Your task to perform on an android device: Open wifi settings Image 0: 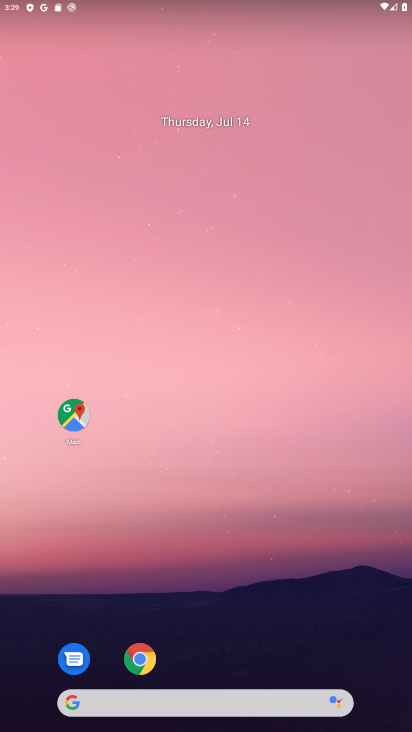
Step 0: drag from (362, 615) to (353, 88)
Your task to perform on an android device: Open wifi settings Image 1: 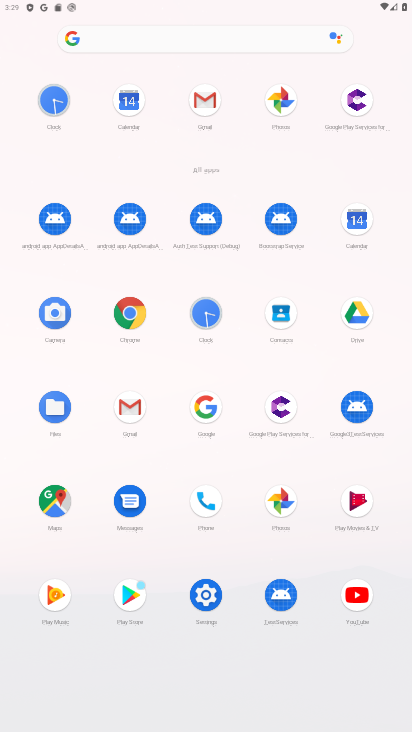
Step 1: click (204, 587)
Your task to perform on an android device: Open wifi settings Image 2: 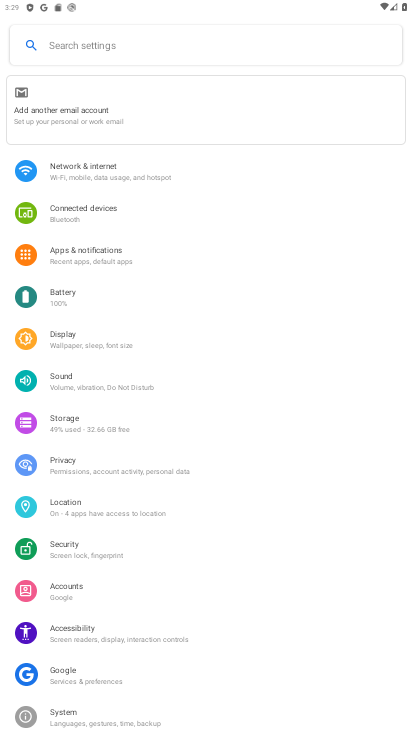
Step 2: click (214, 173)
Your task to perform on an android device: Open wifi settings Image 3: 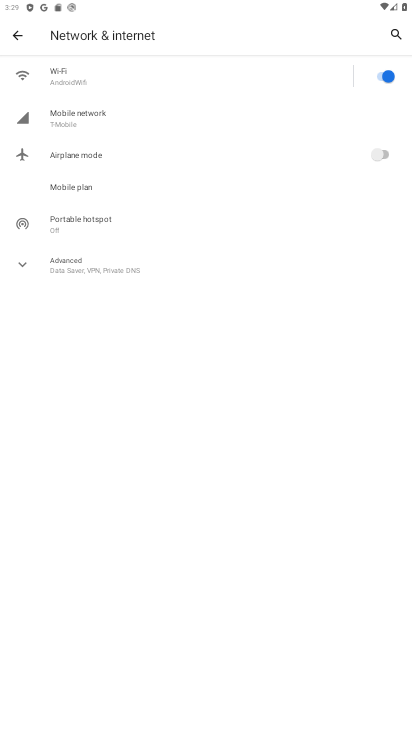
Step 3: click (113, 83)
Your task to perform on an android device: Open wifi settings Image 4: 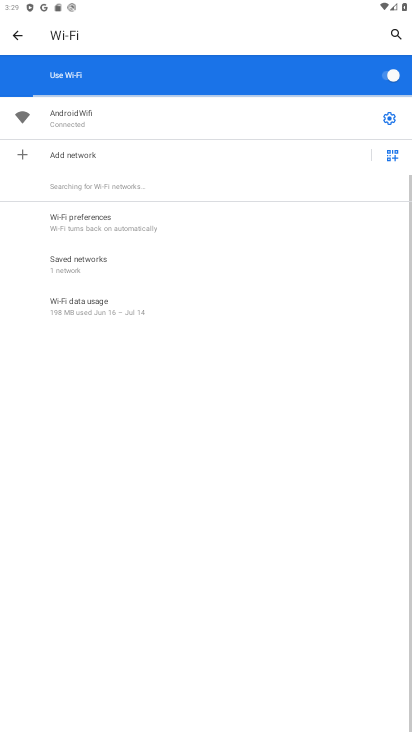
Step 4: task complete